Your task to perform on an android device: open chrome privacy settings Image 0: 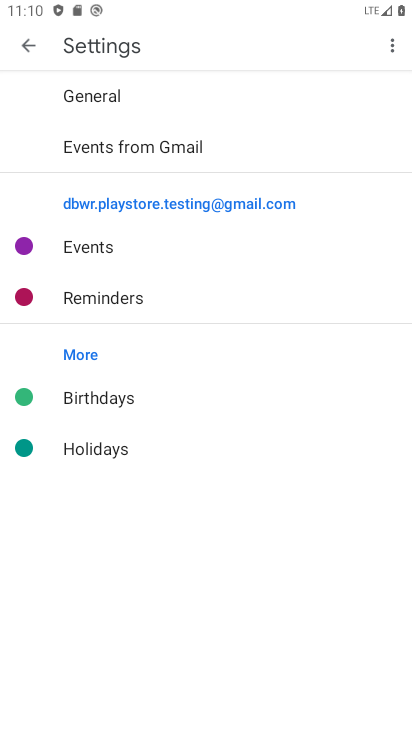
Step 0: press home button
Your task to perform on an android device: open chrome privacy settings Image 1: 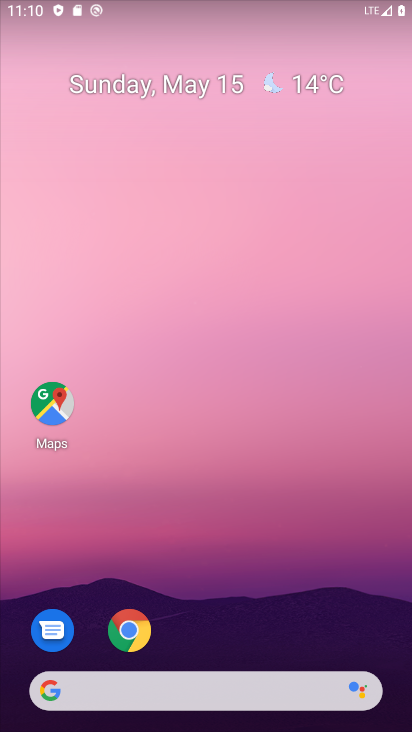
Step 1: click (123, 628)
Your task to perform on an android device: open chrome privacy settings Image 2: 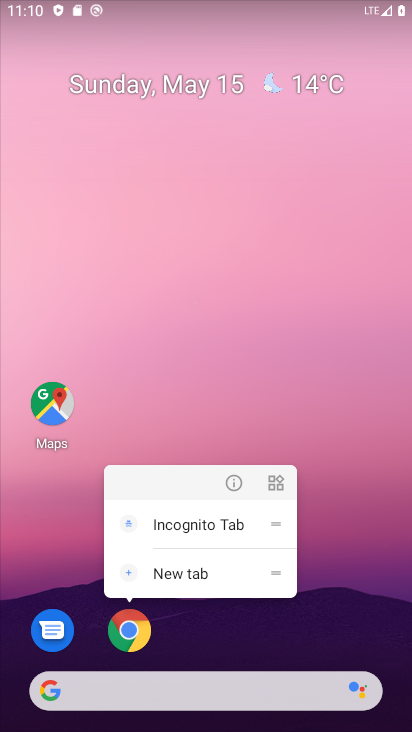
Step 2: click (135, 626)
Your task to perform on an android device: open chrome privacy settings Image 3: 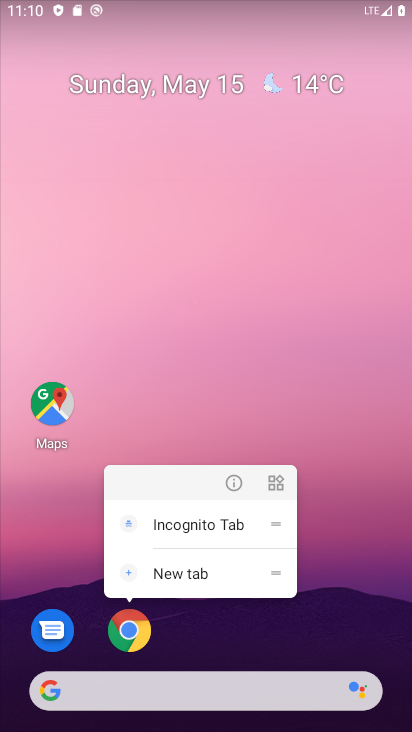
Step 3: click (116, 623)
Your task to perform on an android device: open chrome privacy settings Image 4: 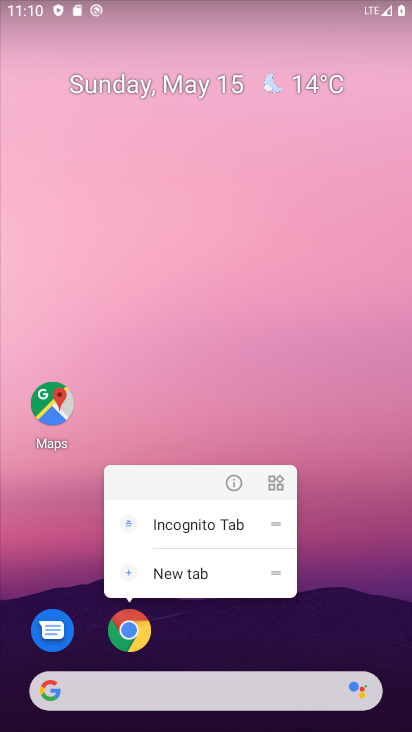
Step 4: click (117, 635)
Your task to perform on an android device: open chrome privacy settings Image 5: 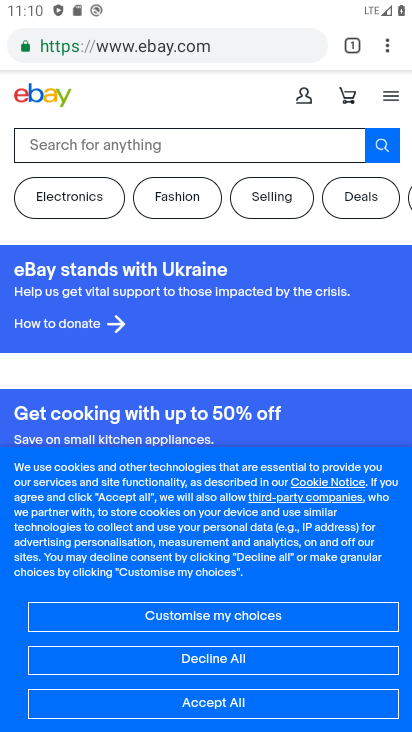
Step 5: click (388, 50)
Your task to perform on an android device: open chrome privacy settings Image 6: 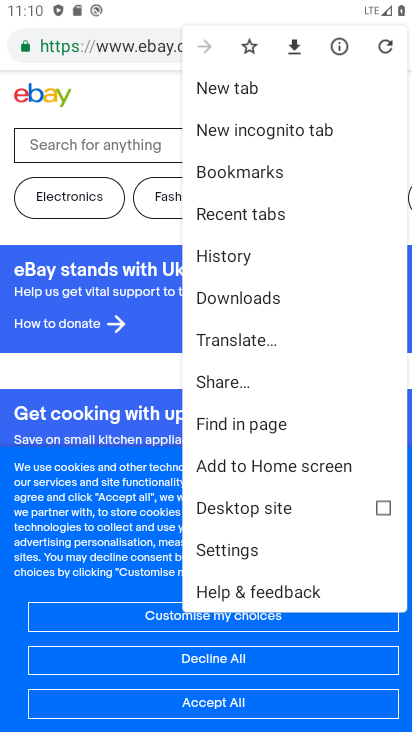
Step 6: click (264, 546)
Your task to perform on an android device: open chrome privacy settings Image 7: 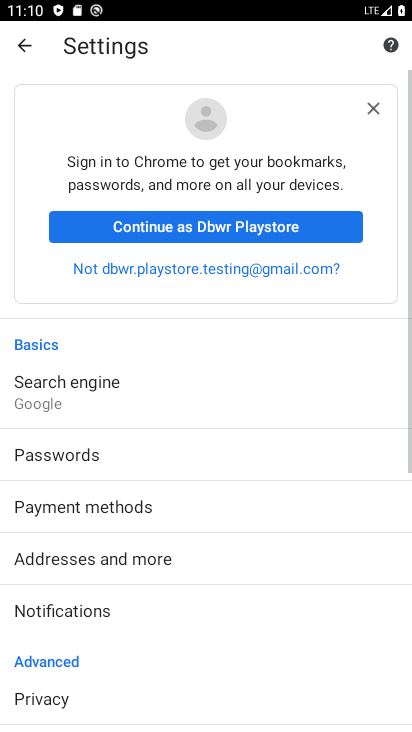
Step 7: task complete